Your task to perform on an android device: change the clock display to show seconds Image 0: 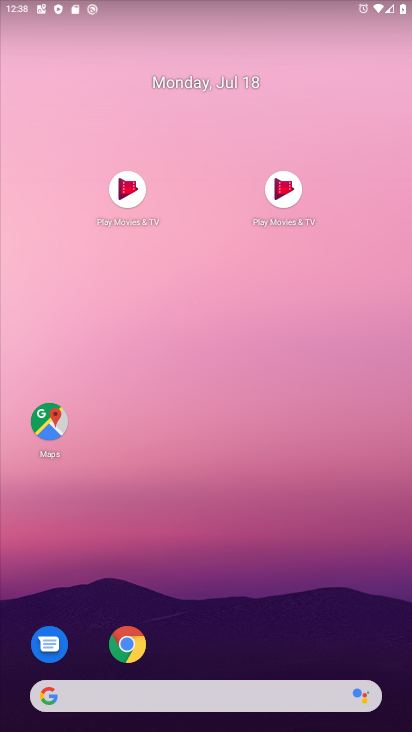
Step 0: drag from (323, 651) to (249, 214)
Your task to perform on an android device: change the clock display to show seconds Image 1: 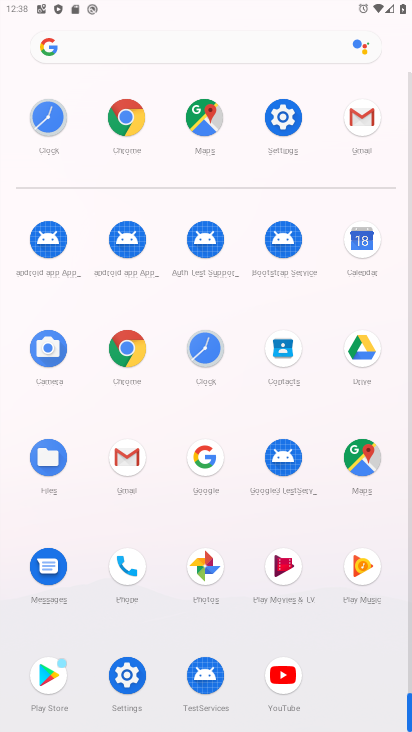
Step 1: click (206, 356)
Your task to perform on an android device: change the clock display to show seconds Image 2: 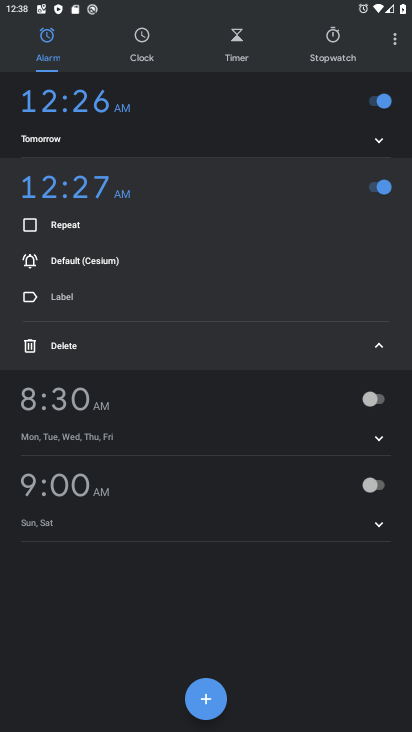
Step 2: click (396, 34)
Your task to perform on an android device: change the clock display to show seconds Image 3: 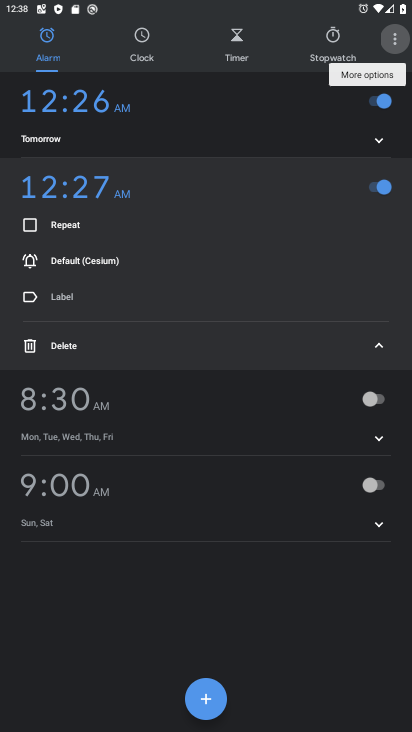
Step 3: click (396, 34)
Your task to perform on an android device: change the clock display to show seconds Image 4: 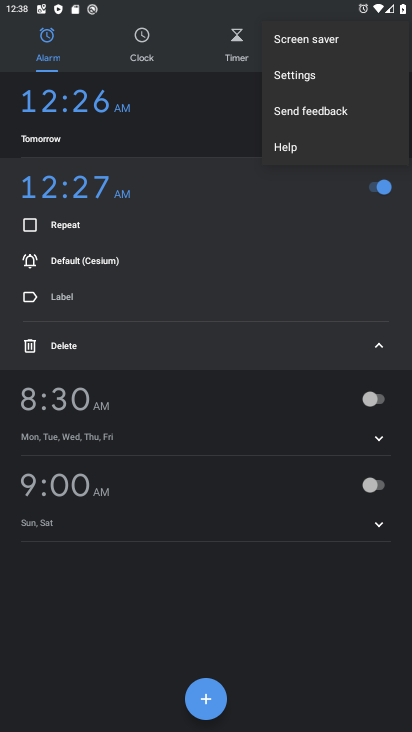
Step 4: click (294, 77)
Your task to perform on an android device: change the clock display to show seconds Image 5: 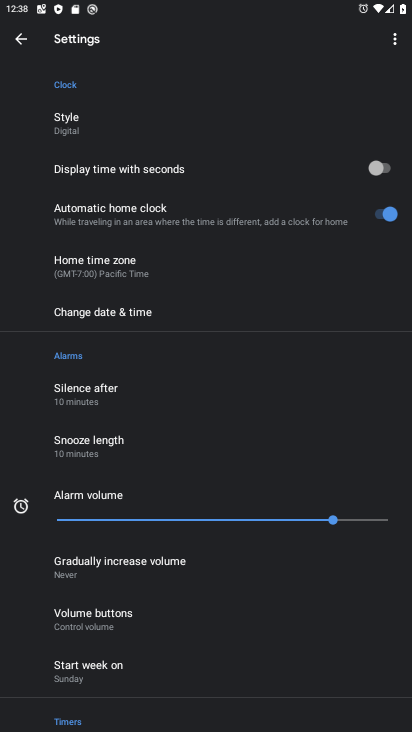
Step 5: click (386, 169)
Your task to perform on an android device: change the clock display to show seconds Image 6: 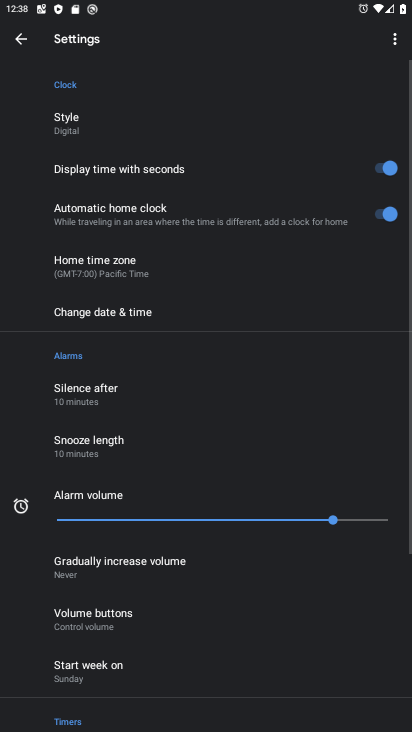
Step 6: task complete